Your task to perform on an android device: Go to settings Image 0: 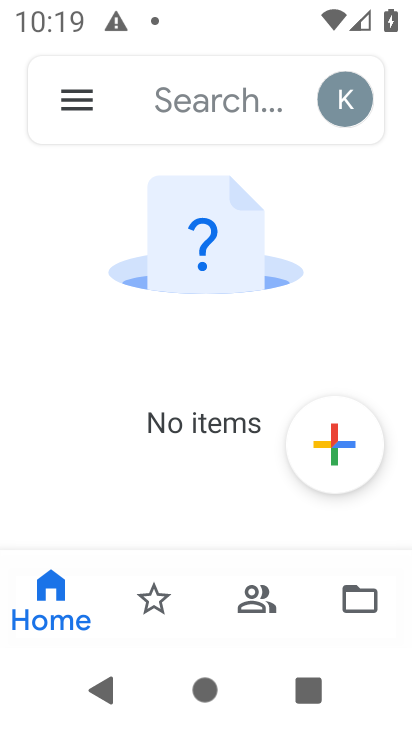
Step 0: press back button
Your task to perform on an android device: Go to settings Image 1: 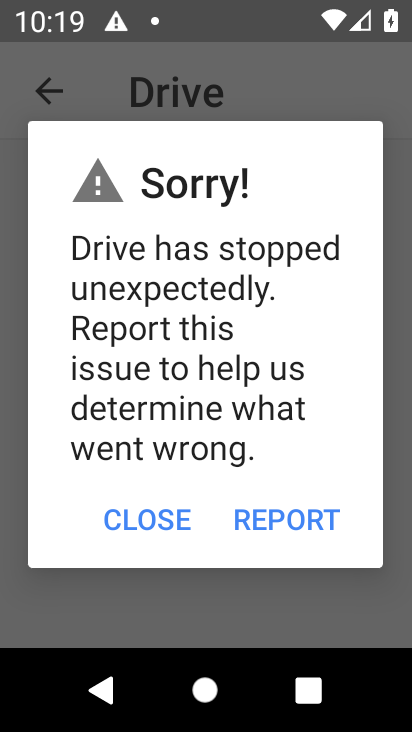
Step 1: press home button
Your task to perform on an android device: Go to settings Image 2: 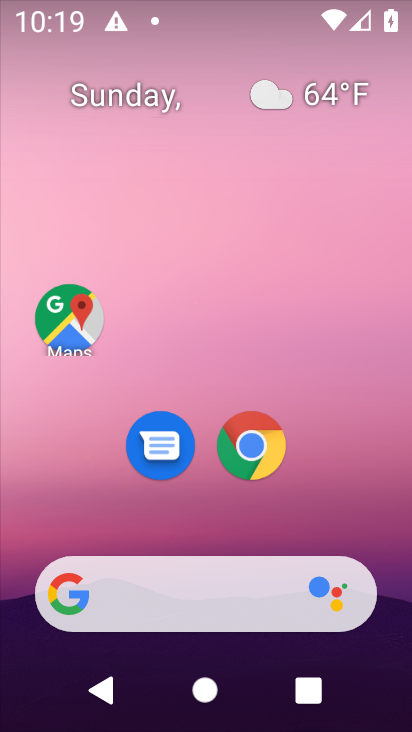
Step 2: drag from (216, 577) to (404, 80)
Your task to perform on an android device: Go to settings Image 3: 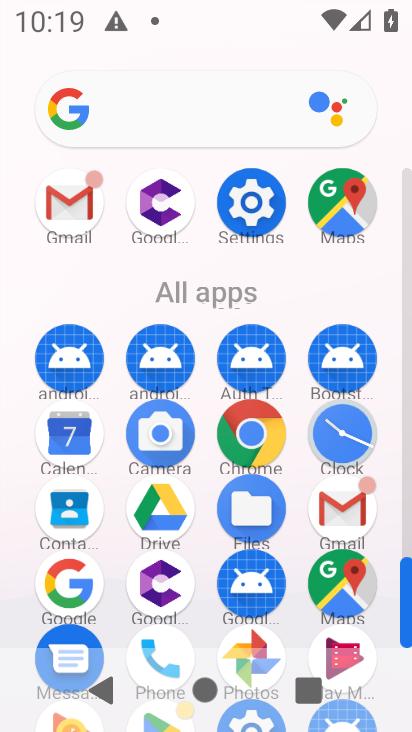
Step 3: click (231, 225)
Your task to perform on an android device: Go to settings Image 4: 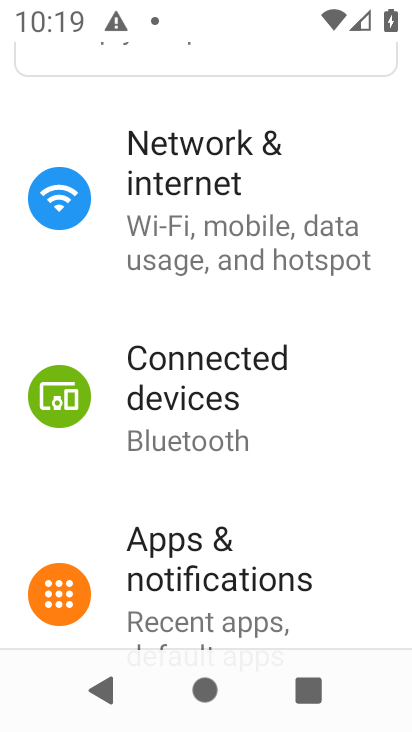
Step 4: task complete